Your task to perform on an android device: open app "HBO Max: Stream TV & Movies" Image 0: 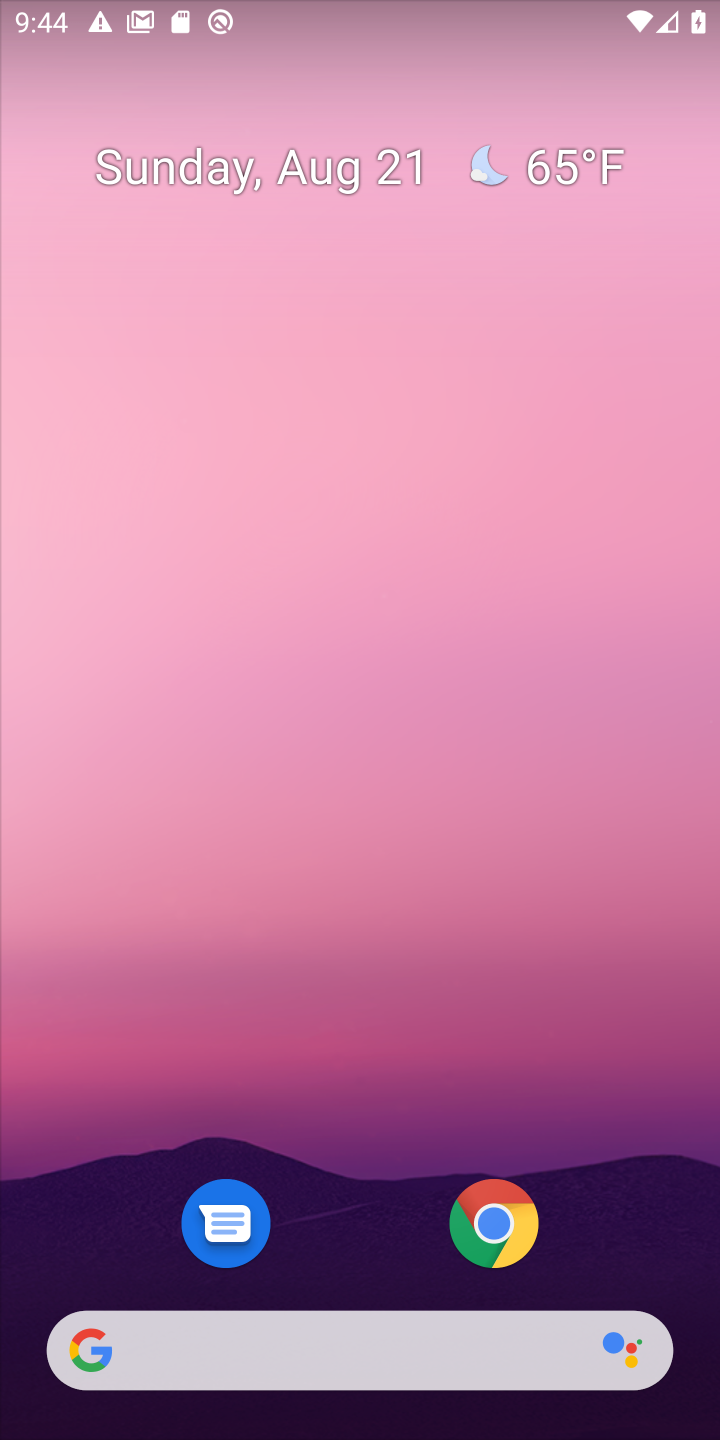
Step 0: press home button
Your task to perform on an android device: open app "HBO Max: Stream TV & Movies" Image 1: 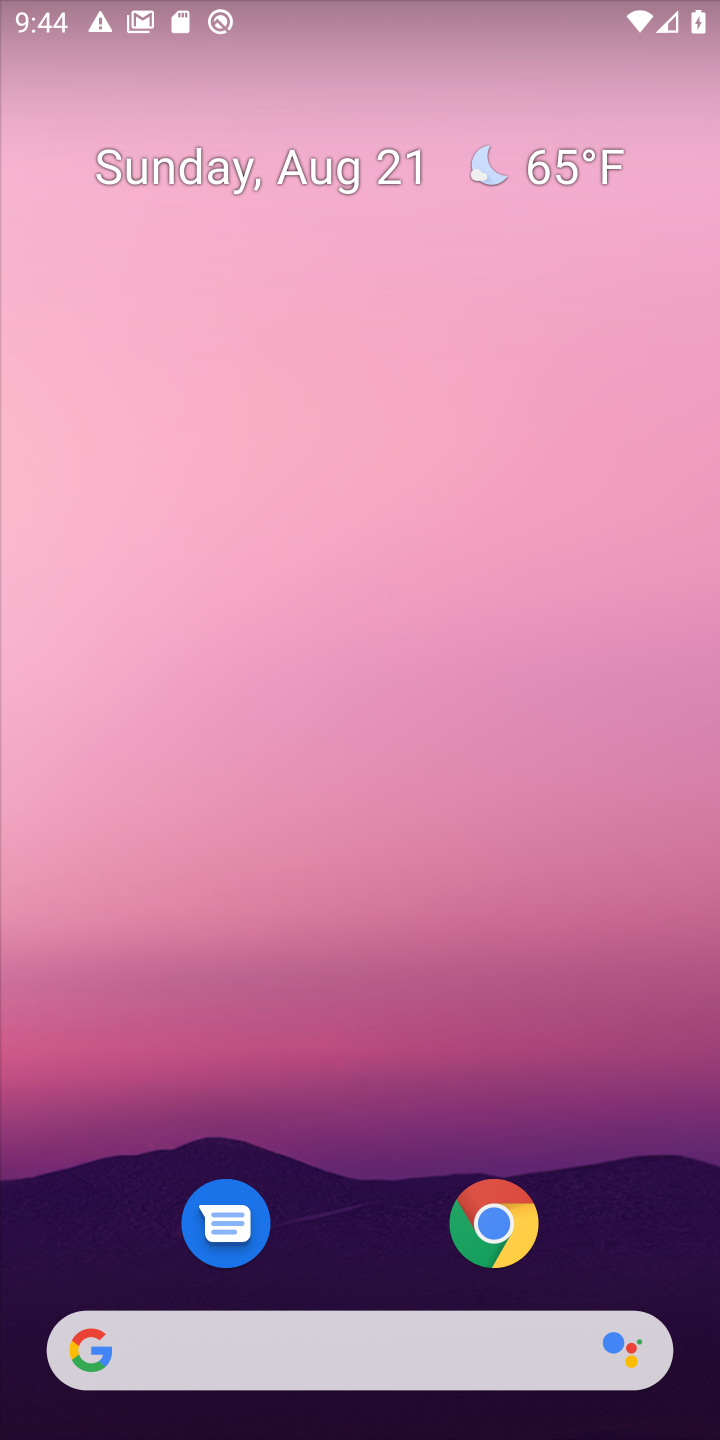
Step 1: drag from (626, 1009) to (637, 137)
Your task to perform on an android device: open app "HBO Max: Stream TV & Movies" Image 2: 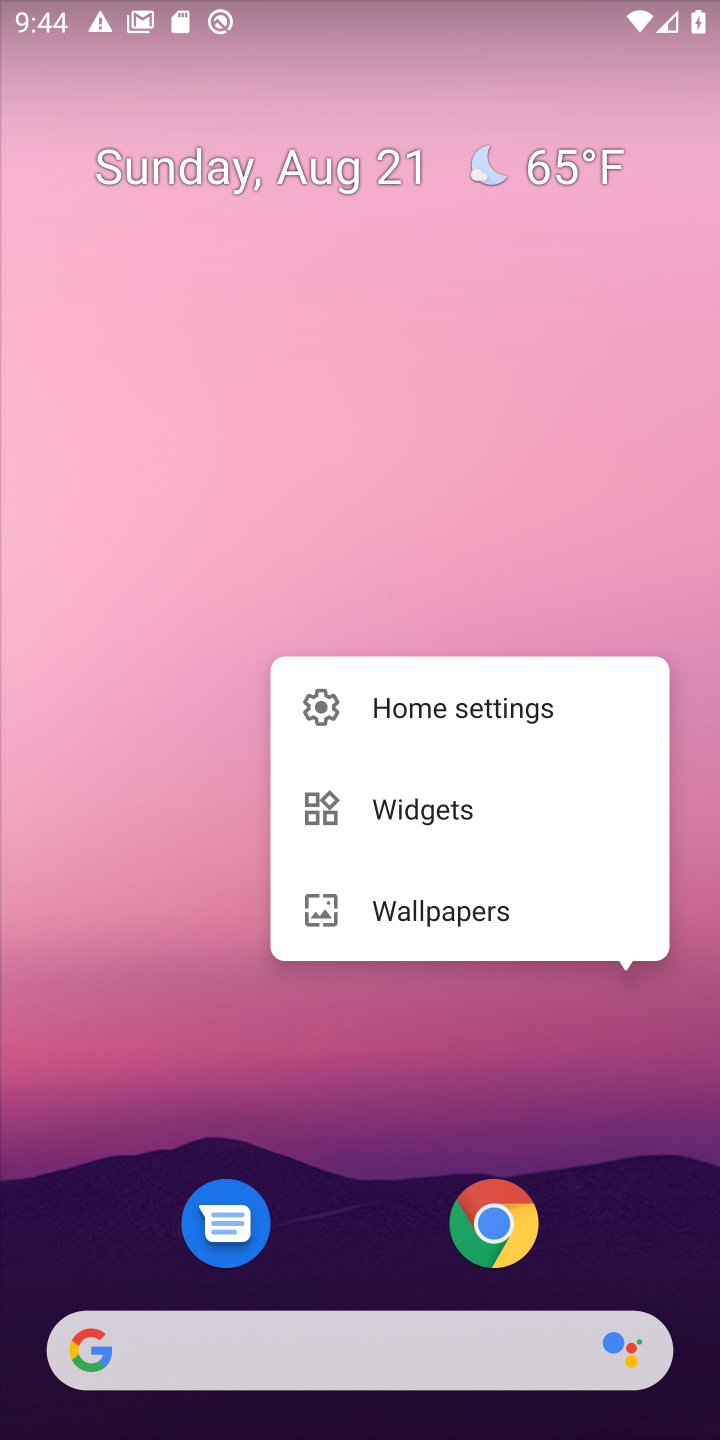
Step 2: click (621, 1131)
Your task to perform on an android device: open app "HBO Max: Stream TV & Movies" Image 3: 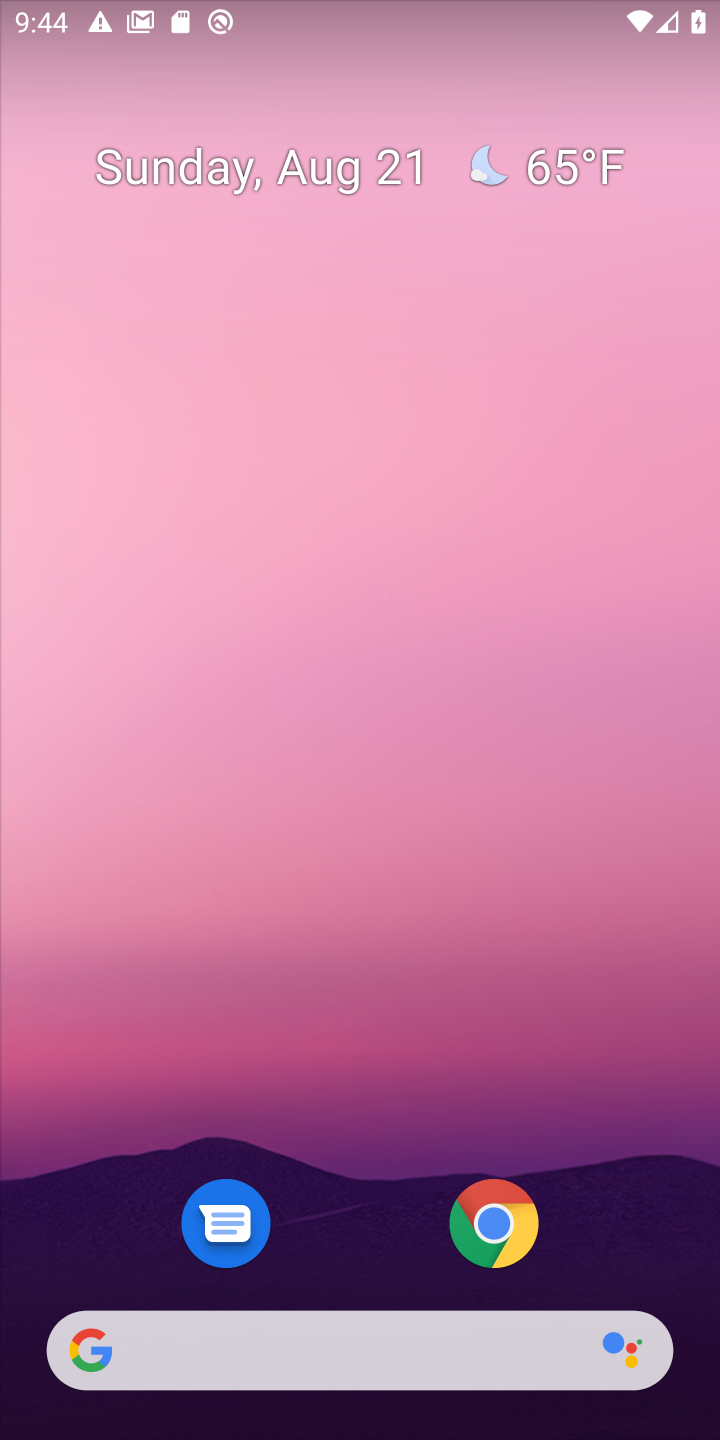
Step 3: drag from (634, 1129) to (655, 131)
Your task to perform on an android device: open app "HBO Max: Stream TV & Movies" Image 4: 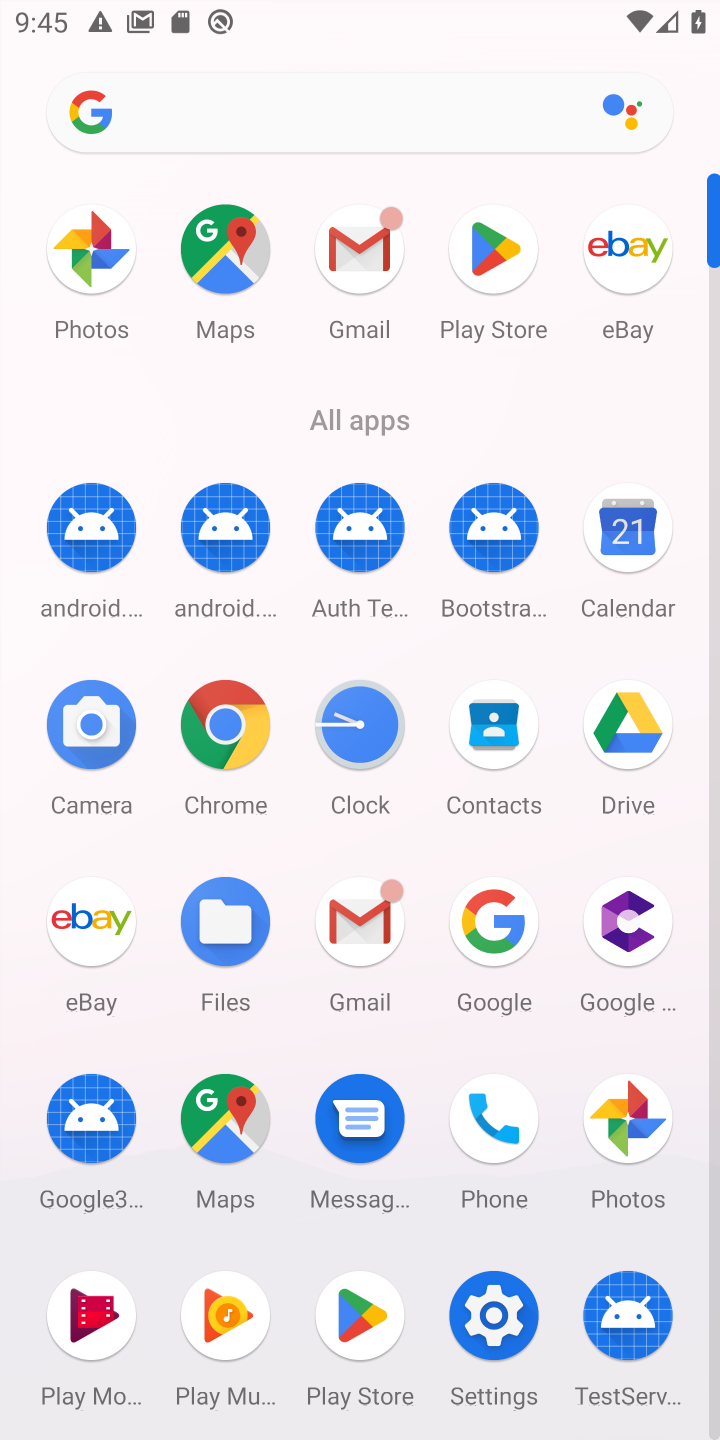
Step 4: click (500, 256)
Your task to perform on an android device: open app "HBO Max: Stream TV & Movies" Image 5: 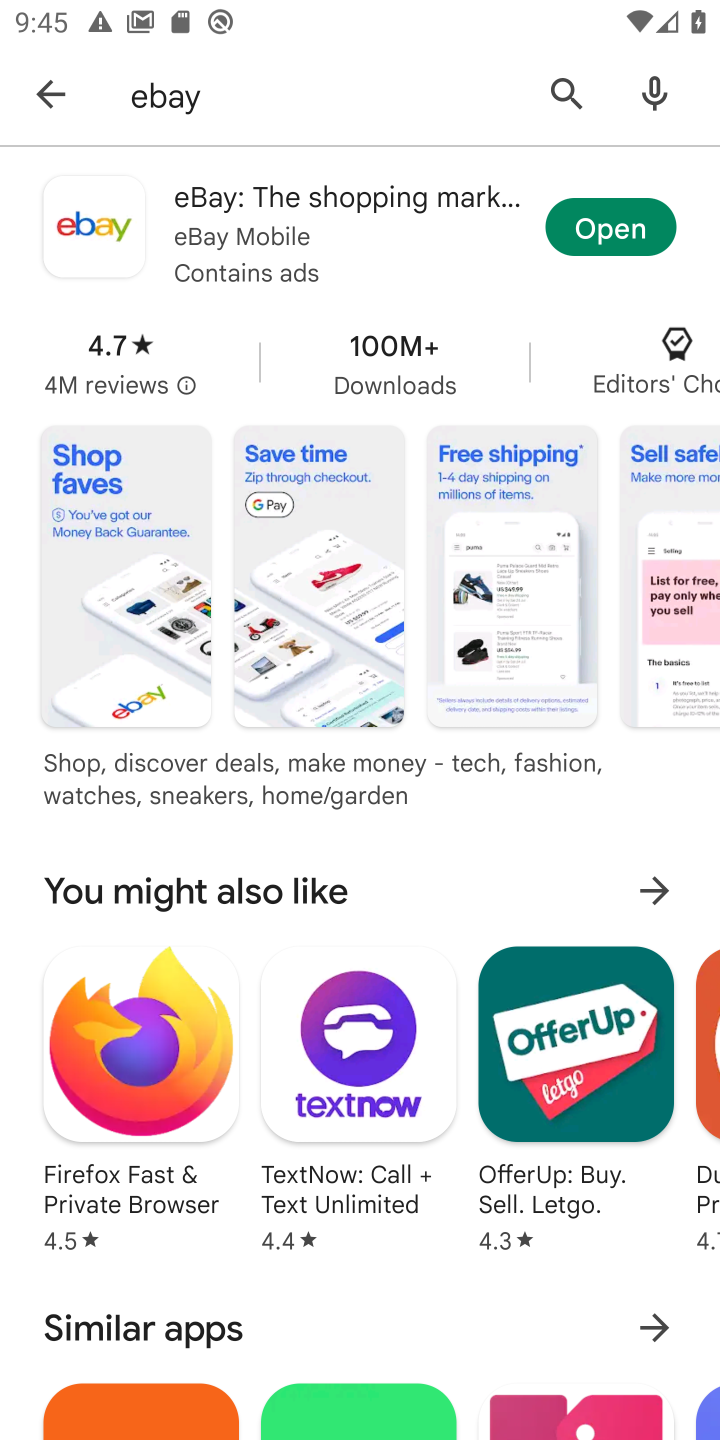
Step 5: press back button
Your task to perform on an android device: open app "HBO Max: Stream TV & Movies" Image 6: 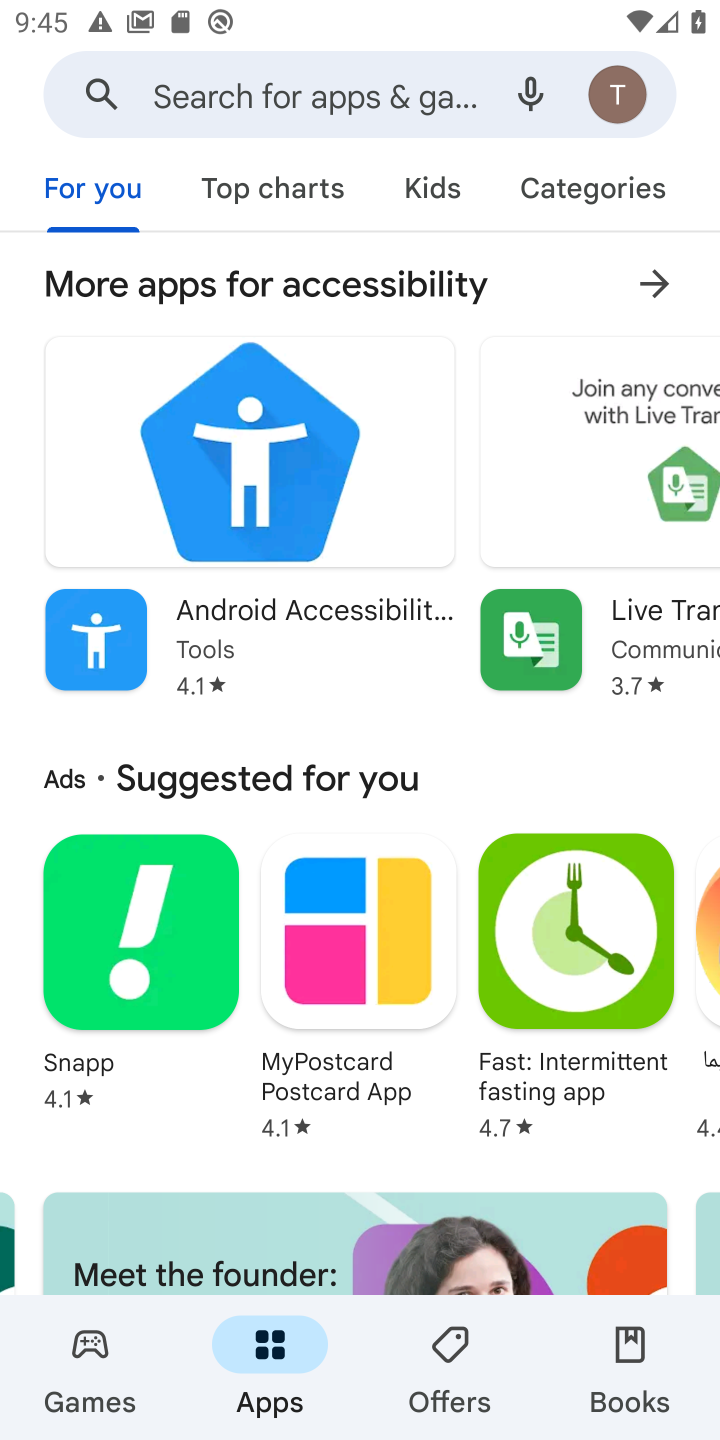
Step 6: click (289, 96)
Your task to perform on an android device: open app "HBO Max: Stream TV & Movies" Image 7: 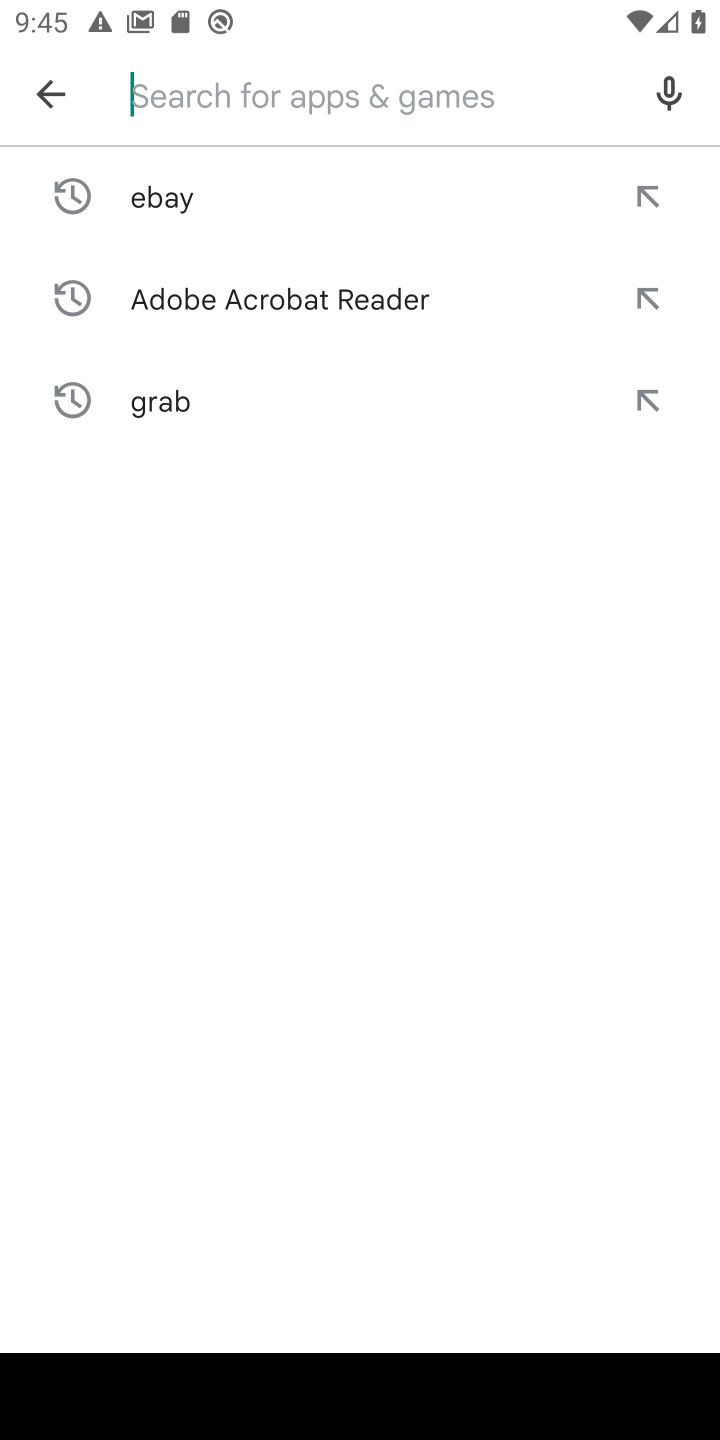
Step 7: press enter
Your task to perform on an android device: open app "HBO Max: Stream TV & Movies" Image 8: 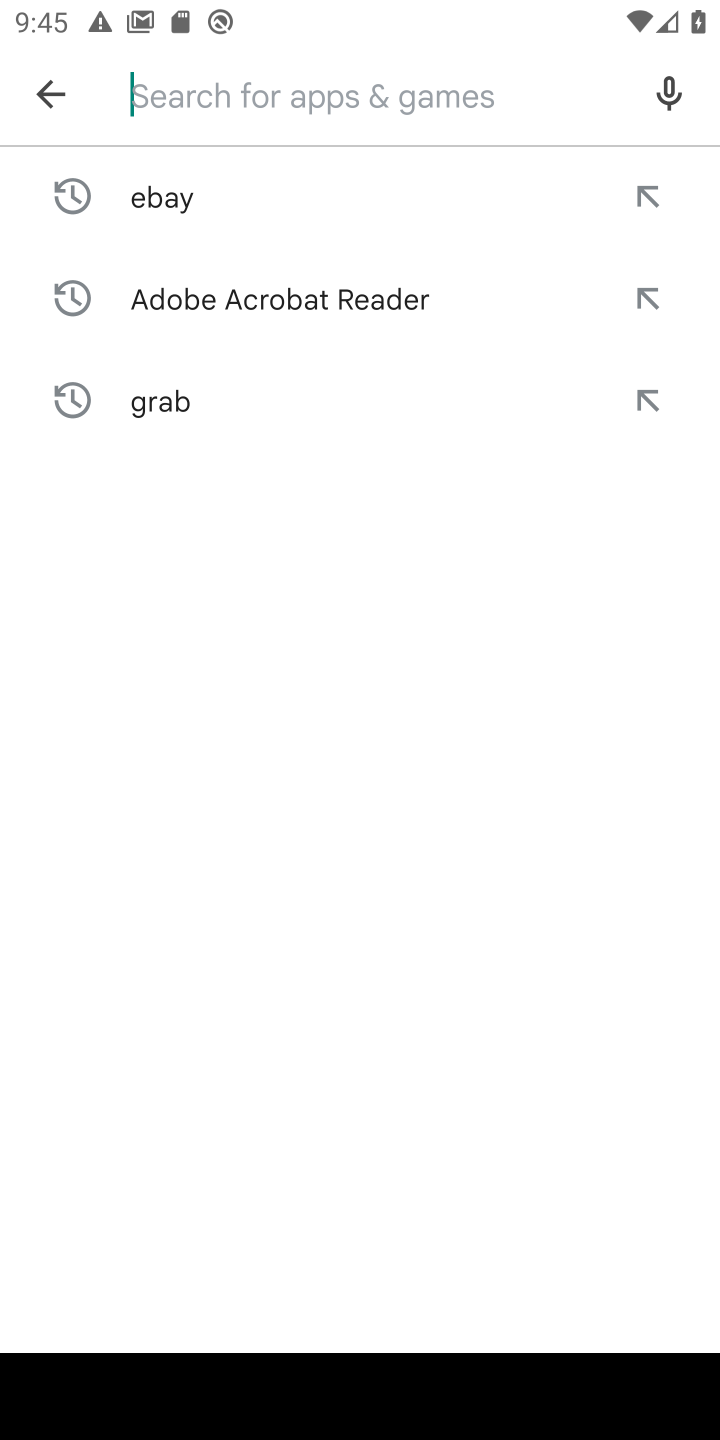
Step 8: type "HBO Max: Stream TV & Movies"
Your task to perform on an android device: open app "HBO Max: Stream TV & Movies" Image 9: 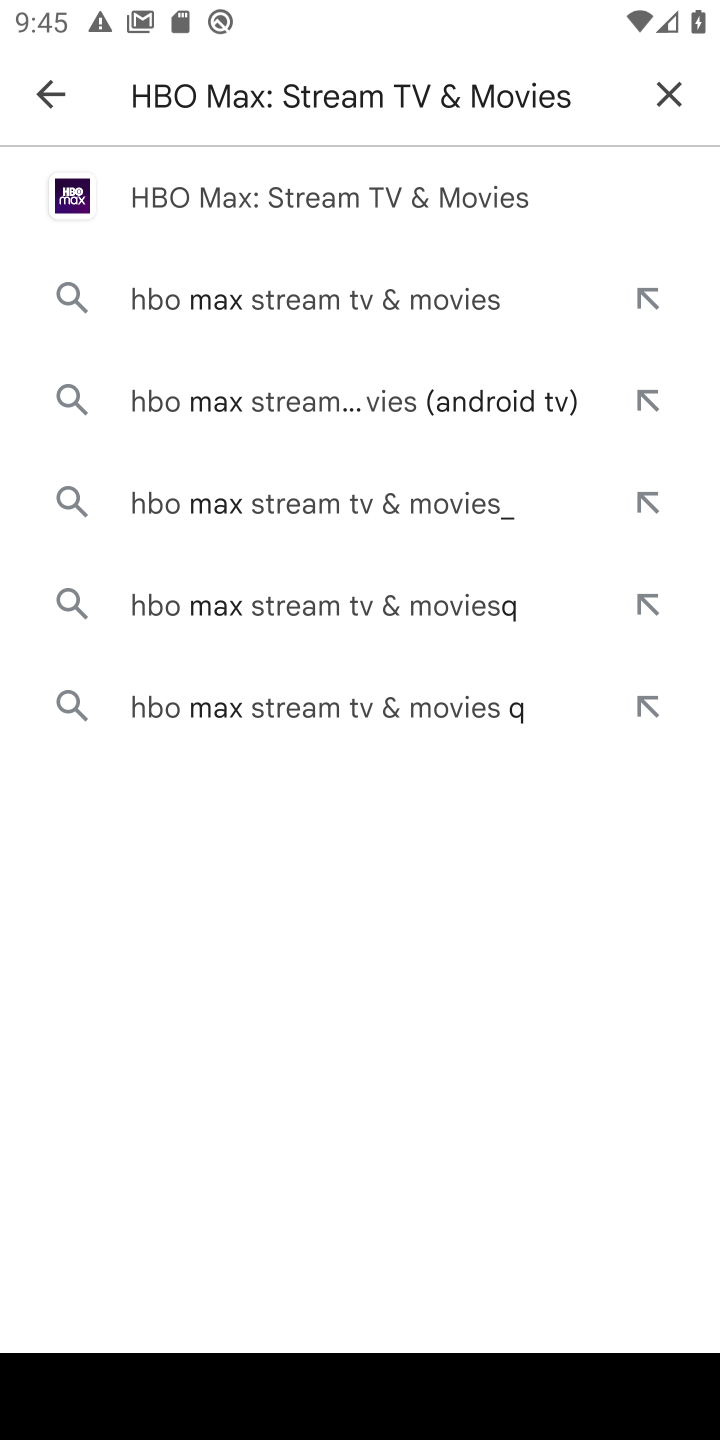
Step 9: click (468, 210)
Your task to perform on an android device: open app "HBO Max: Stream TV & Movies" Image 10: 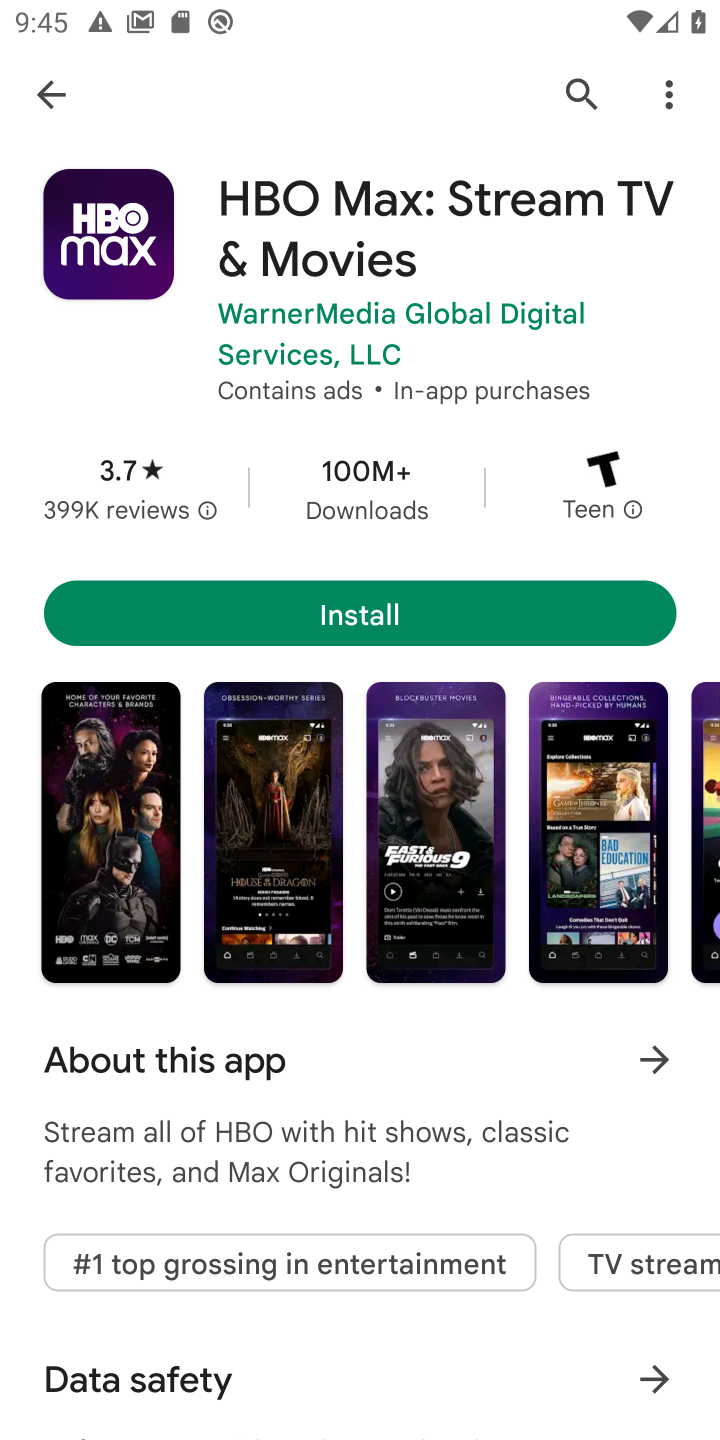
Step 10: task complete